Your task to perform on an android device: turn off sleep mode Image 0: 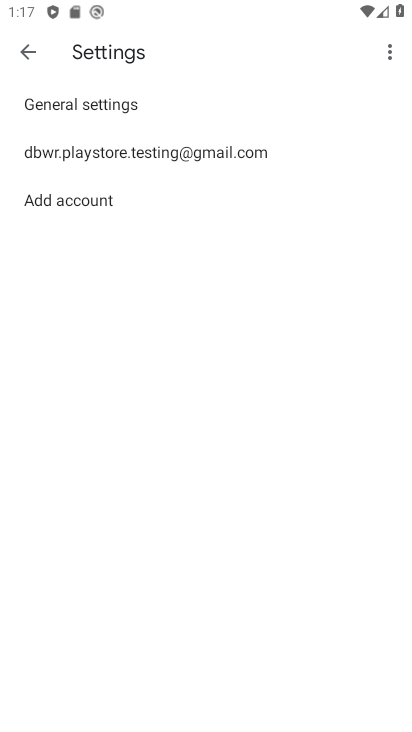
Step 0: press home button
Your task to perform on an android device: turn off sleep mode Image 1: 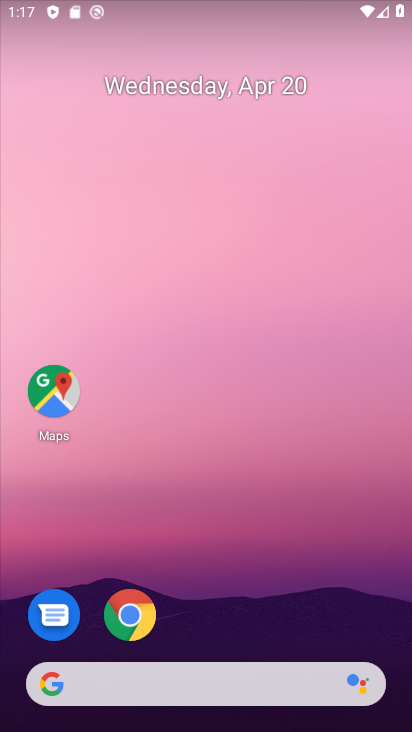
Step 1: drag from (233, 629) to (216, 206)
Your task to perform on an android device: turn off sleep mode Image 2: 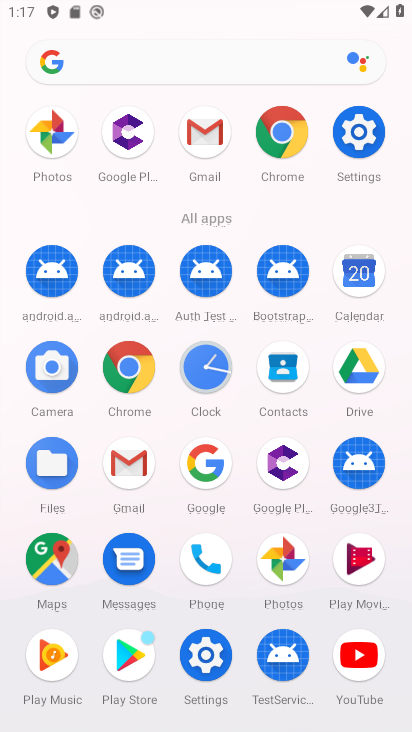
Step 2: click (354, 142)
Your task to perform on an android device: turn off sleep mode Image 3: 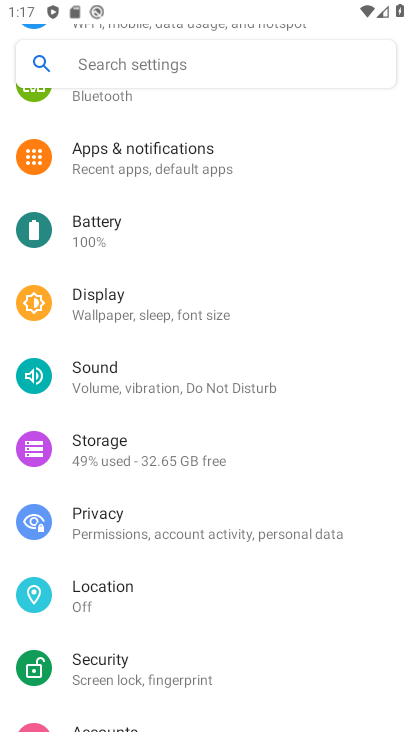
Step 3: click (156, 320)
Your task to perform on an android device: turn off sleep mode Image 4: 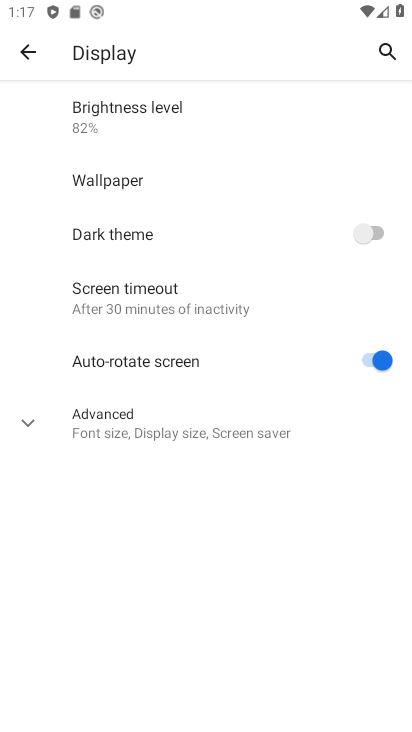
Step 4: click (151, 414)
Your task to perform on an android device: turn off sleep mode Image 5: 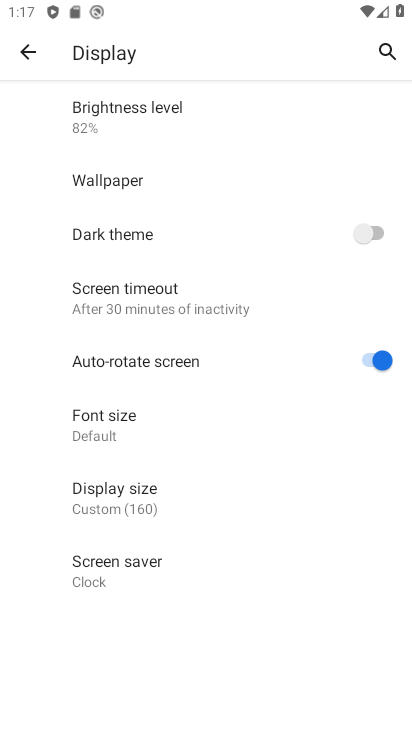
Step 5: task complete